Your task to perform on an android device: Go to wifi settings Image 0: 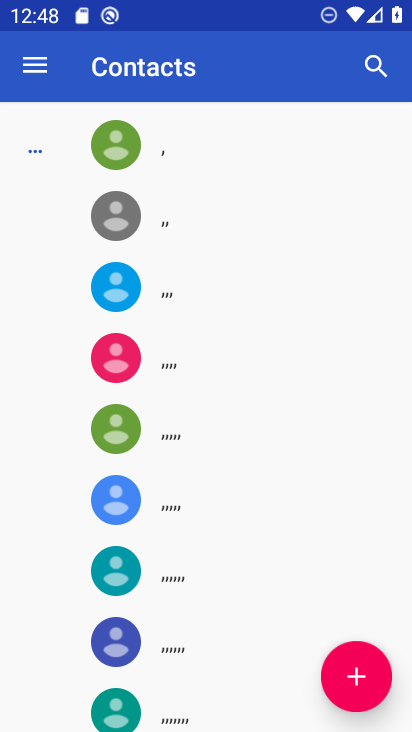
Step 0: press home button
Your task to perform on an android device: Go to wifi settings Image 1: 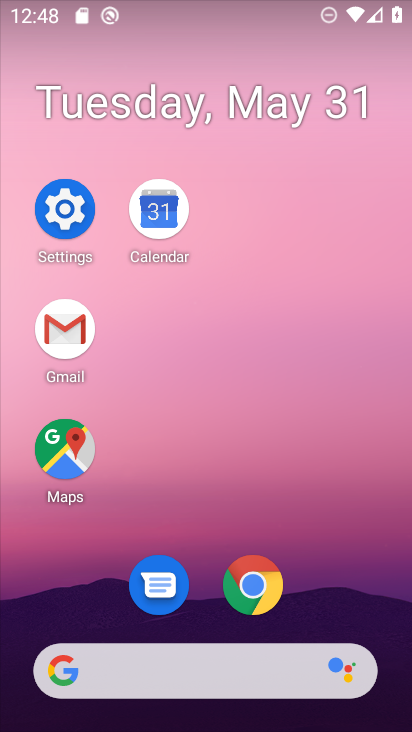
Step 1: click (60, 209)
Your task to perform on an android device: Go to wifi settings Image 2: 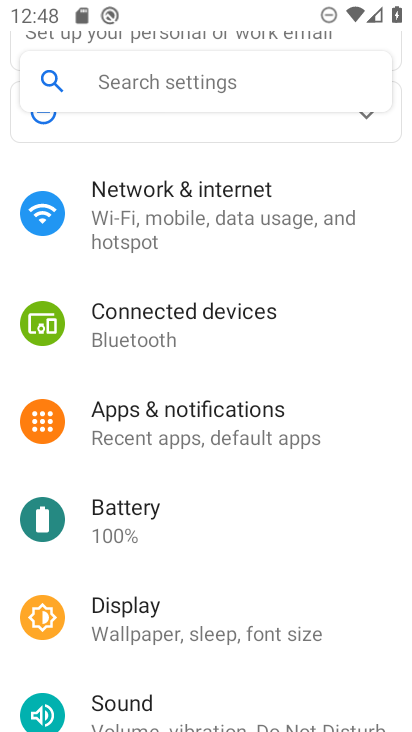
Step 2: click (156, 228)
Your task to perform on an android device: Go to wifi settings Image 3: 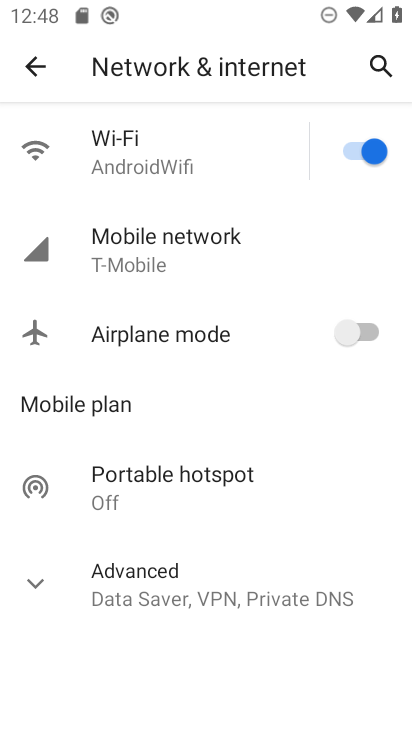
Step 3: click (170, 156)
Your task to perform on an android device: Go to wifi settings Image 4: 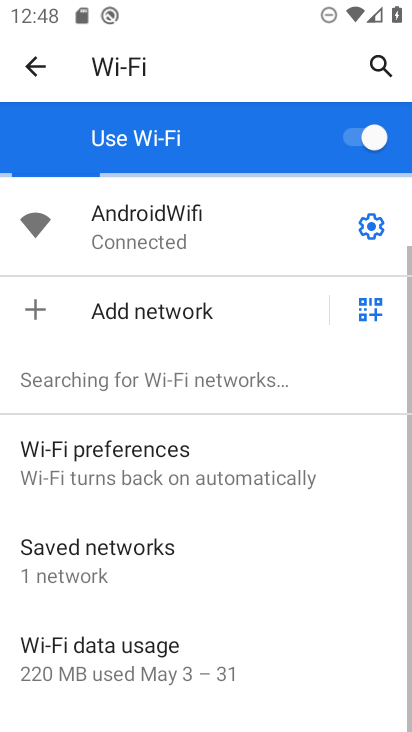
Step 4: click (372, 223)
Your task to perform on an android device: Go to wifi settings Image 5: 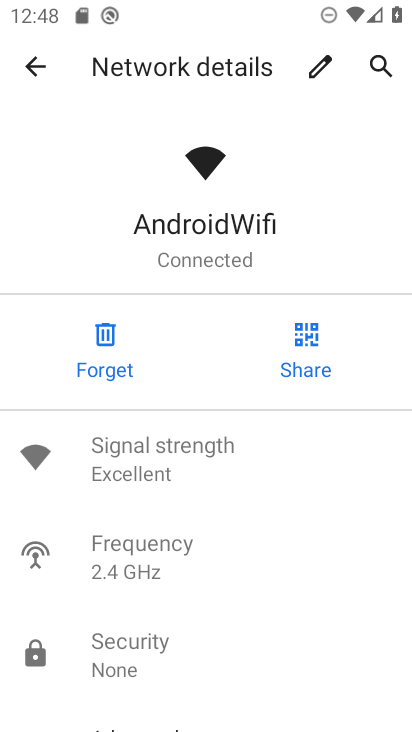
Step 5: task complete